Your task to perform on an android device: turn off improve location accuracy Image 0: 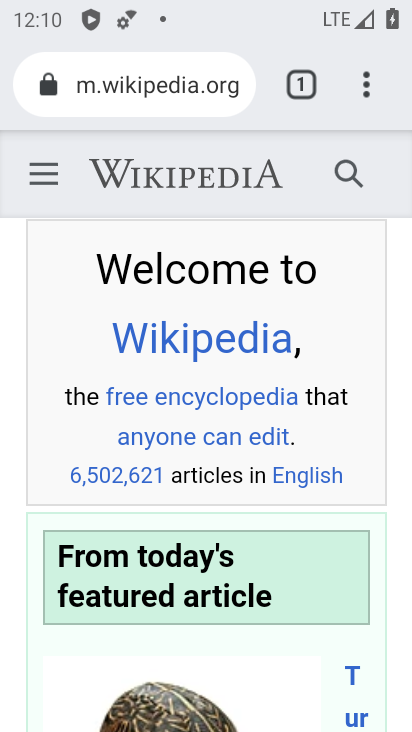
Step 0: press home button
Your task to perform on an android device: turn off improve location accuracy Image 1: 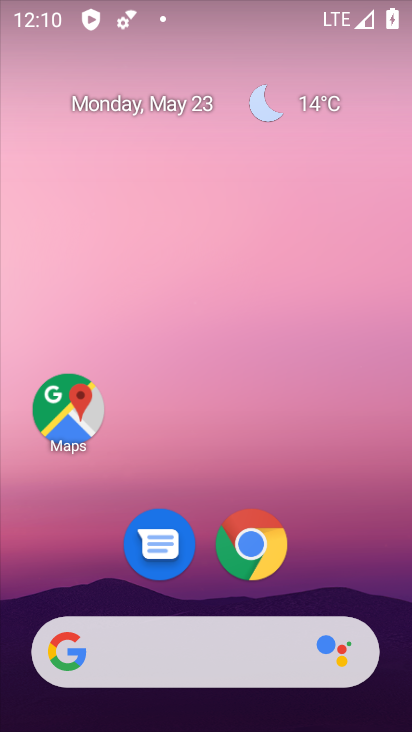
Step 1: drag from (214, 579) to (207, 245)
Your task to perform on an android device: turn off improve location accuracy Image 2: 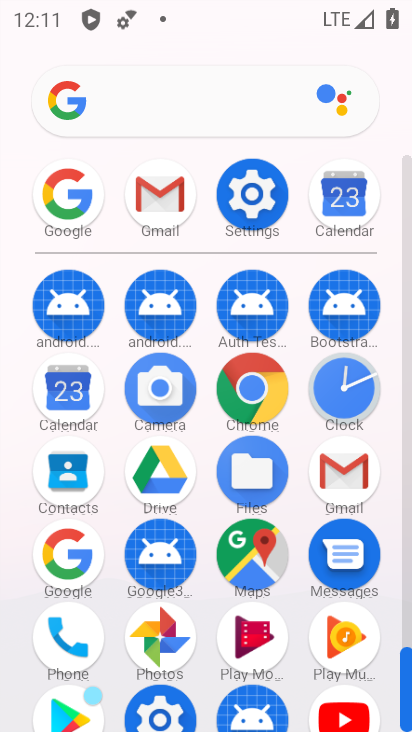
Step 2: click (254, 208)
Your task to perform on an android device: turn off improve location accuracy Image 3: 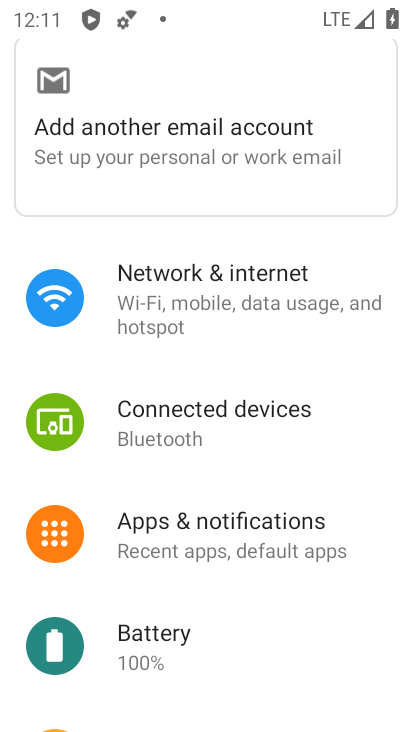
Step 3: drag from (251, 653) to (250, 241)
Your task to perform on an android device: turn off improve location accuracy Image 4: 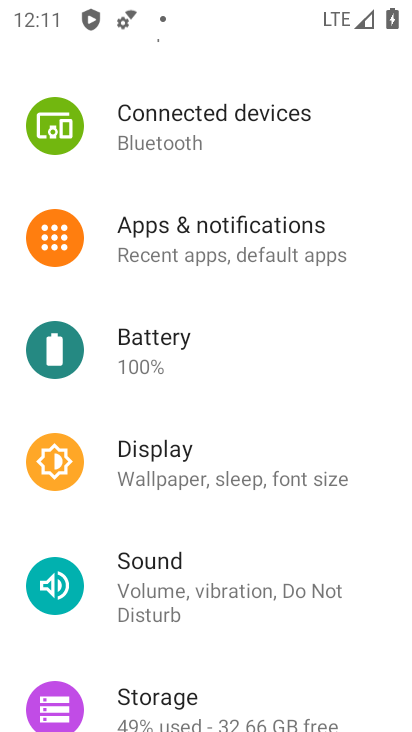
Step 4: drag from (197, 633) to (204, 394)
Your task to perform on an android device: turn off improve location accuracy Image 5: 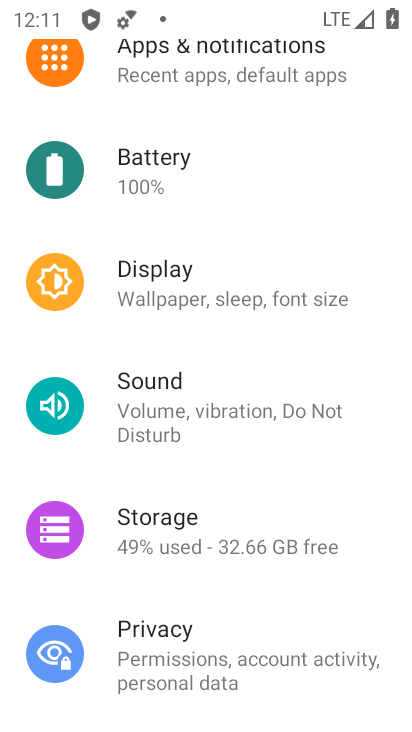
Step 5: drag from (139, 649) to (163, 369)
Your task to perform on an android device: turn off improve location accuracy Image 6: 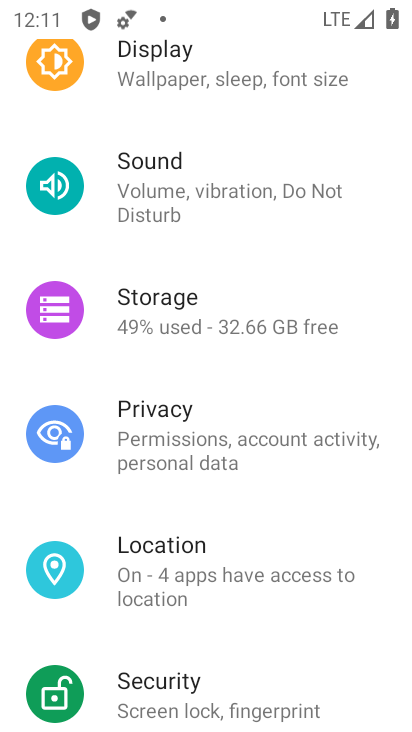
Step 6: click (158, 565)
Your task to perform on an android device: turn off improve location accuracy Image 7: 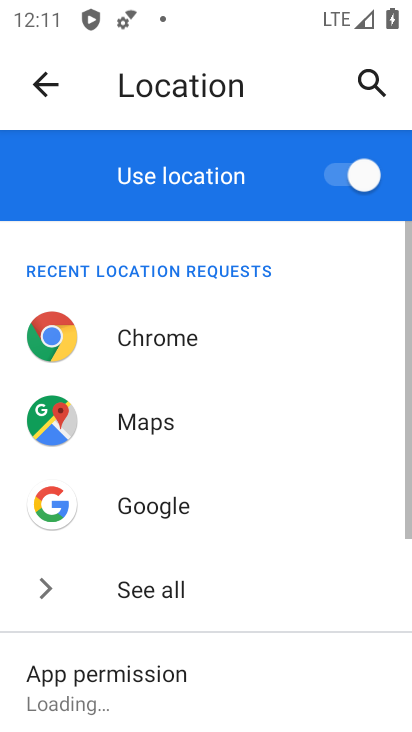
Step 7: drag from (187, 657) to (229, 306)
Your task to perform on an android device: turn off improve location accuracy Image 8: 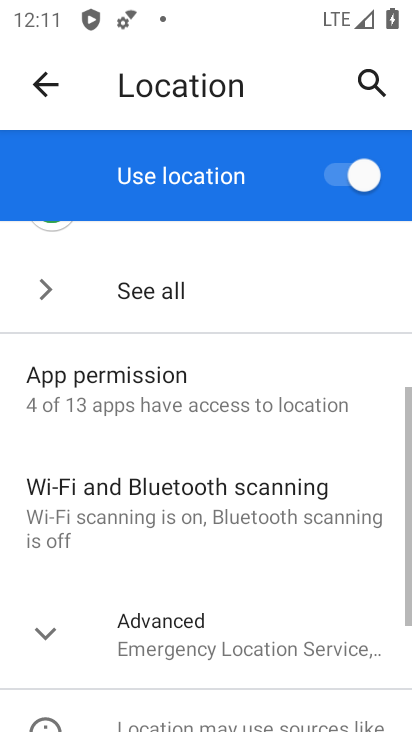
Step 8: drag from (174, 587) to (212, 335)
Your task to perform on an android device: turn off improve location accuracy Image 9: 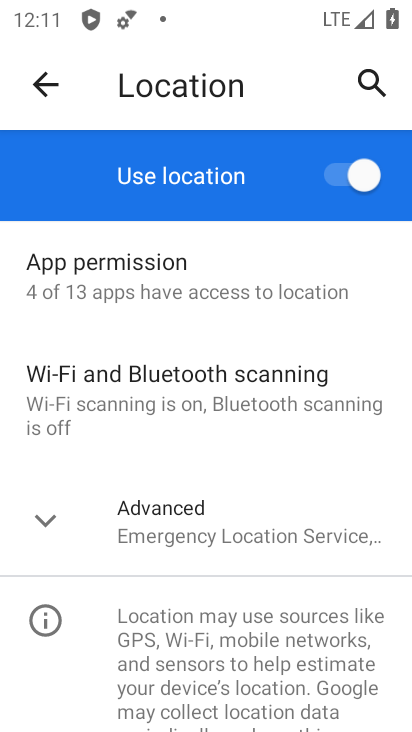
Step 9: click (159, 541)
Your task to perform on an android device: turn off improve location accuracy Image 10: 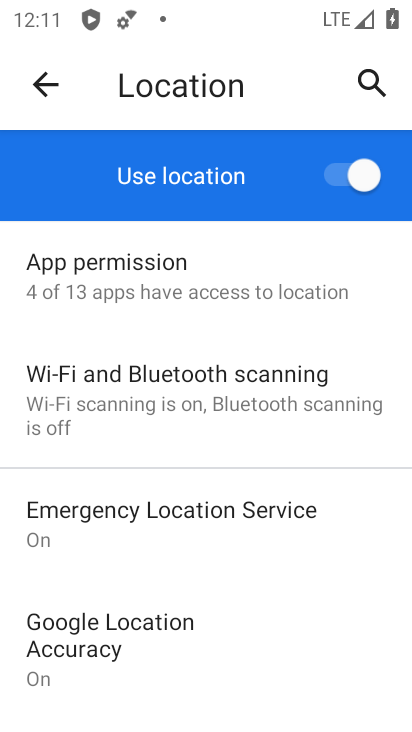
Step 10: drag from (196, 629) to (233, 397)
Your task to perform on an android device: turn off improve location accuracy Image 11: 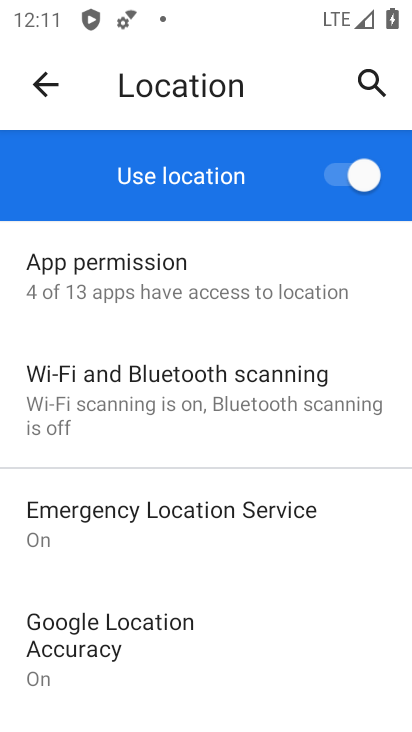
Step 11: click (141, 653)
Your task to perform on an android device: turn off improve location accuracy Image 12: 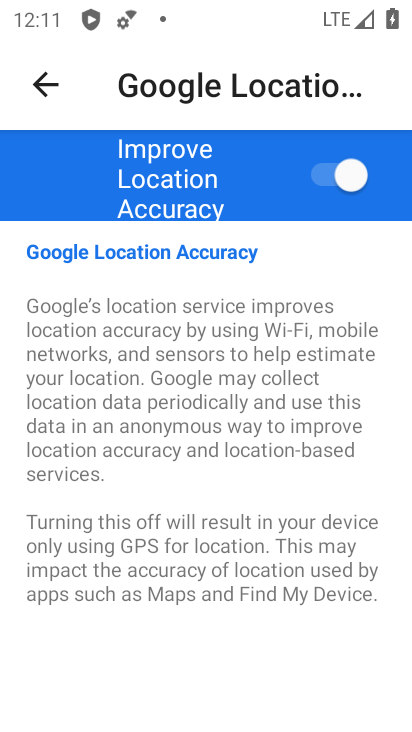
Step 12: click (328, 185)
Your task to perform on an android device: turn off improve location accuracy Image 13: 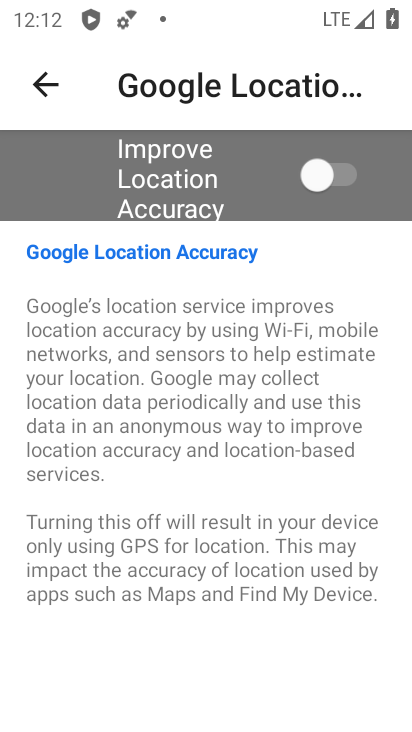
Step 13: task complete